Your task to perform on an android device: Open wifi settings Image 0: 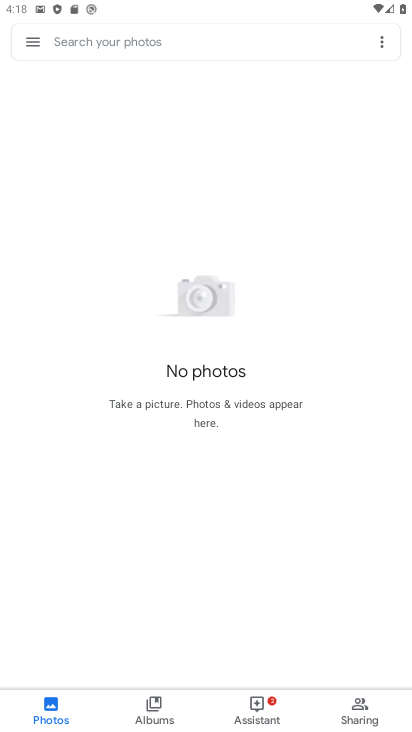
Step 0: press home button
Your task to perform on an android device: Open wifi settings Image 1: 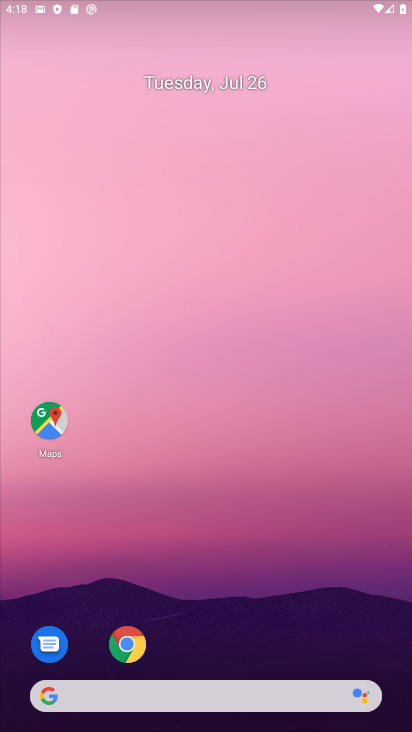
Step 1: drag from (320, 615) to (366, 43)
Your task to perform on an android device: Open wifi settings Image 2: 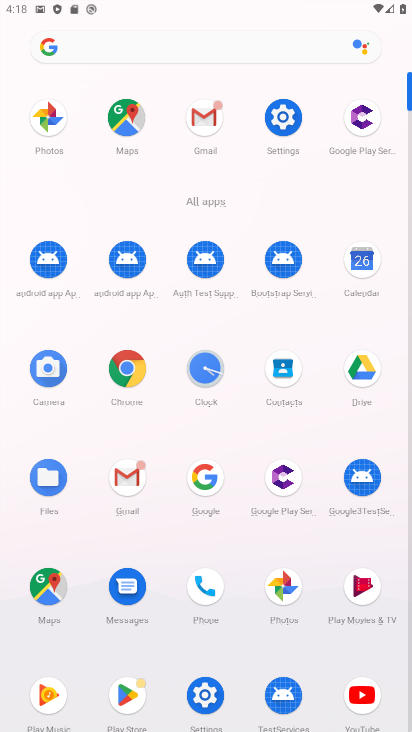
Step 2: drag from (219, 1) to (187, 528)
Your task to perform on an android device: Open wifi settings Image 3: 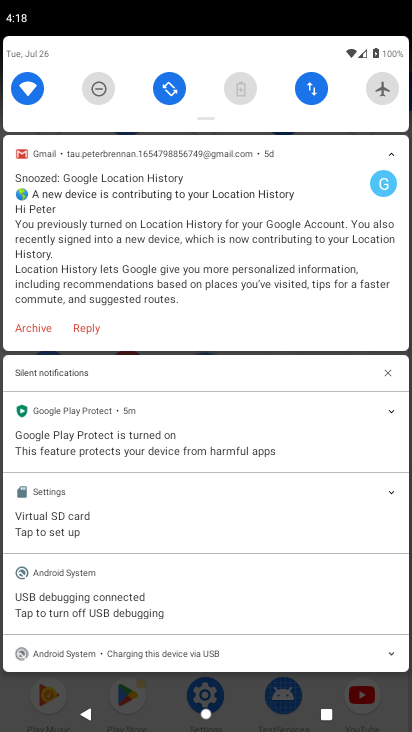
Step 3: click (40, 91)
Your task to perform on an android device: Open wifi settings Image 4: 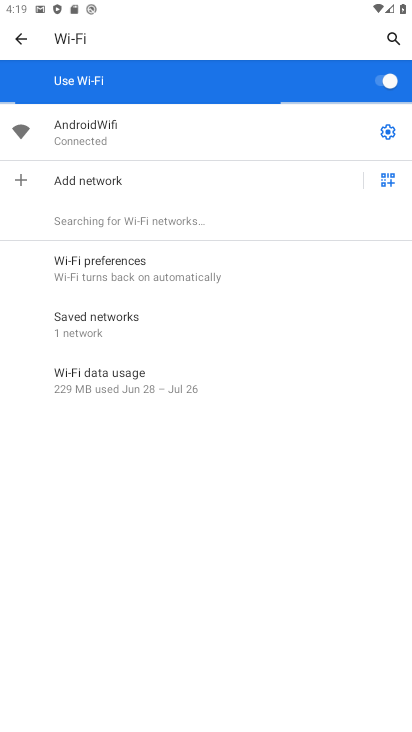
Step 4: task complete